Your task to perform on an android device: Go to Yahoo.com Image 0: 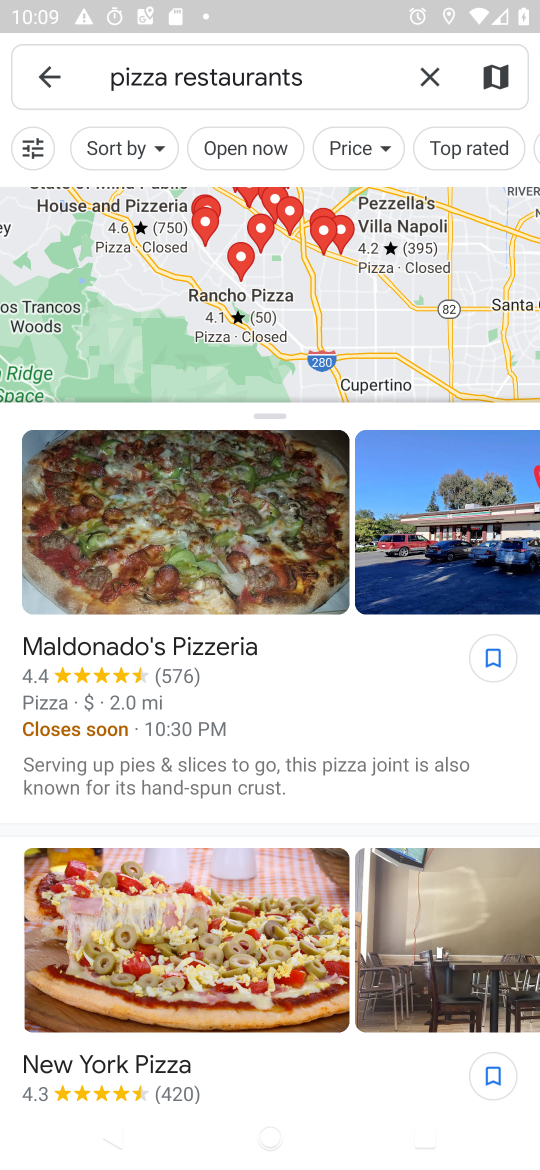
Step 0: press home button
Your task to perform on an android device: Go to Yahoo.com Image 1: 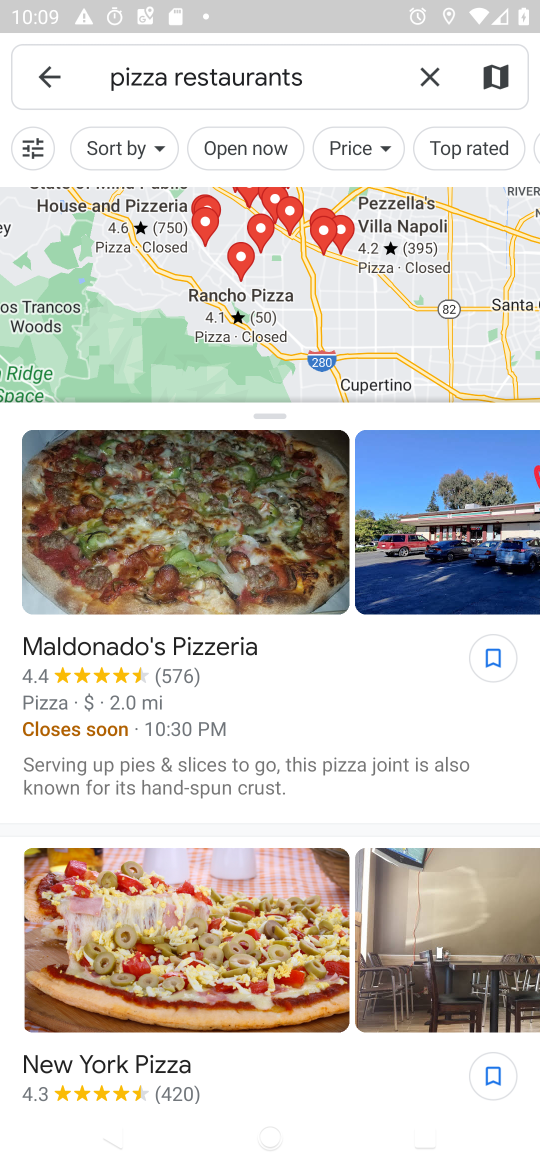
Step 1: press home button
Your task to perform on an android device: Go to Yahoo.com Image 2: 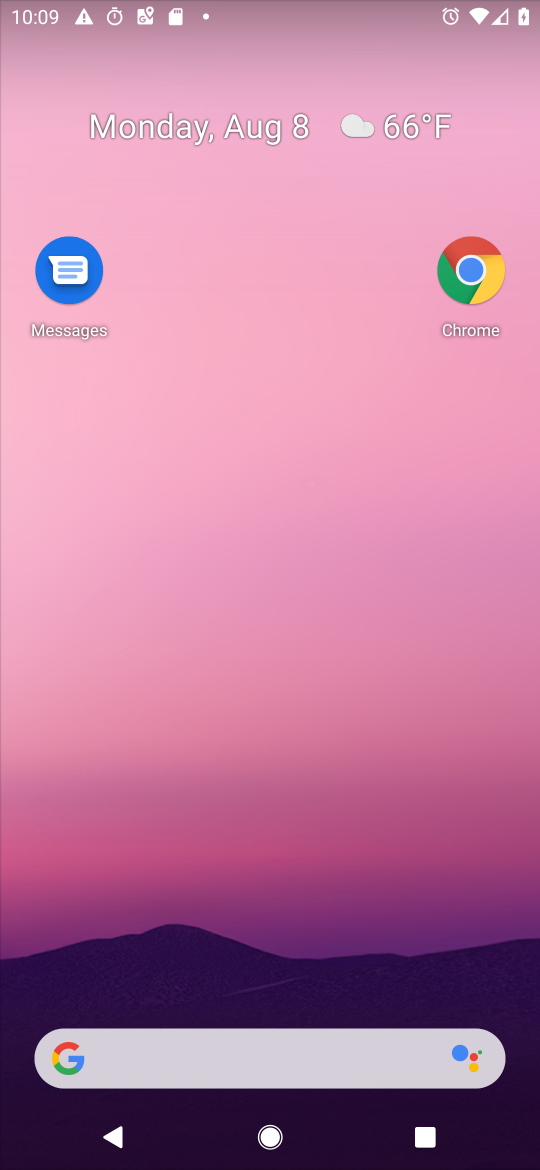
Step 2: drag from (245, 1022) to (164, 231)
Your task to perform on an android device: Go to Yahoo.com Image 3: 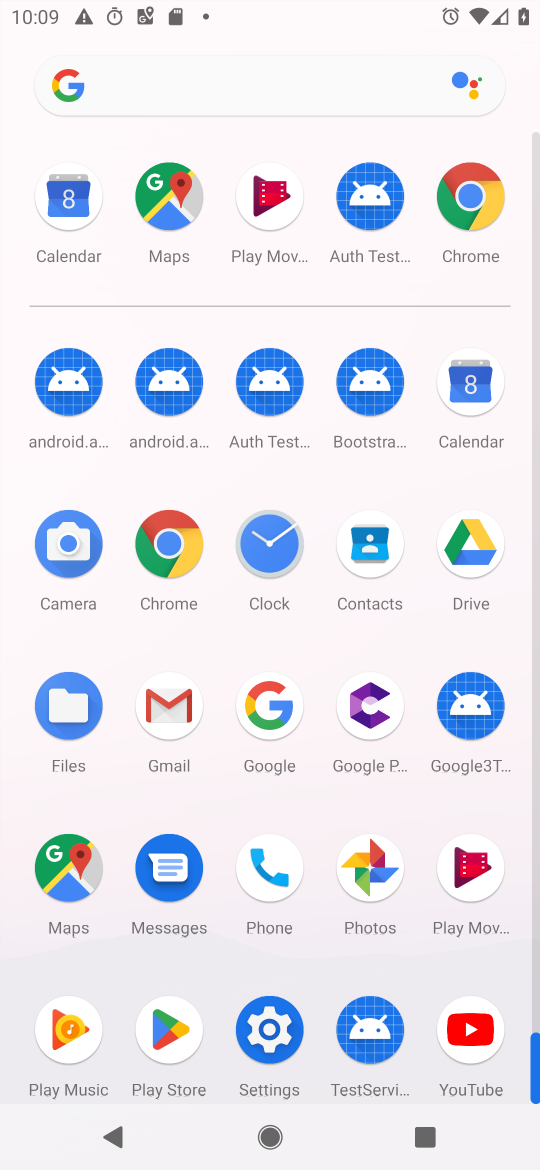
Step 3: click (478, 193)
Your task to perform on an android device: Go to Yahoo.com Image 4: 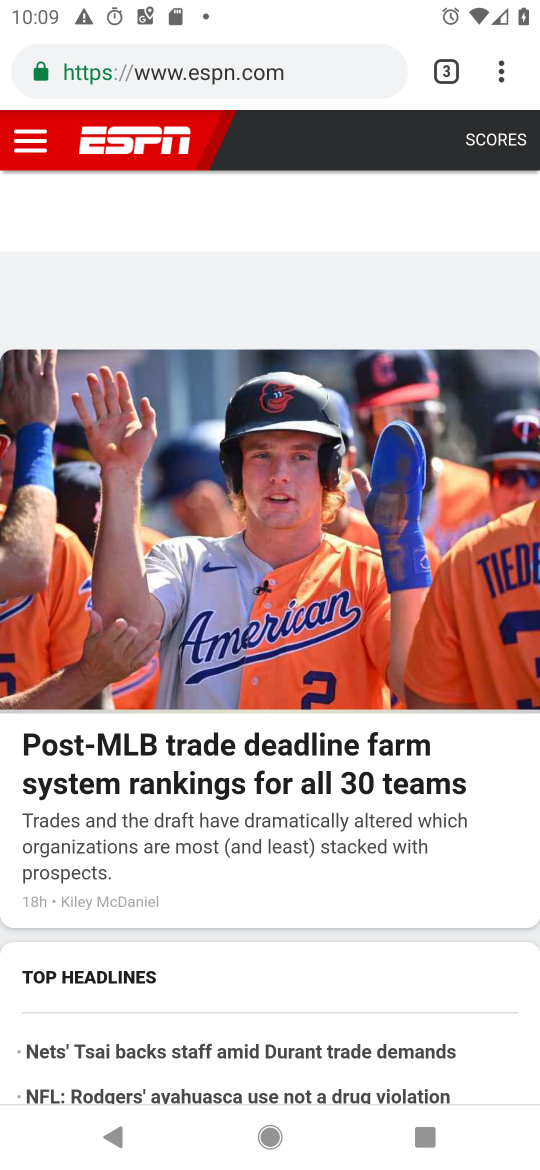
Step 4: click (237, 58)
Your task to perform on an android device: Go to Yahoo.com Image 5: 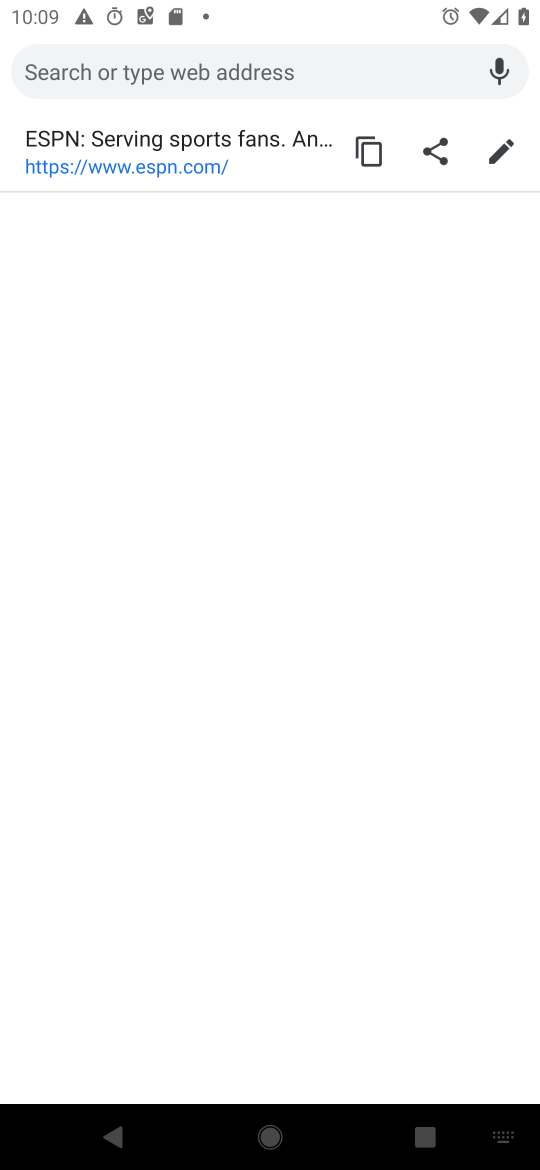
Step 5: type " Yahoo.com"
Your task to perform on an android device: Go to Yahoo.com Image 6: 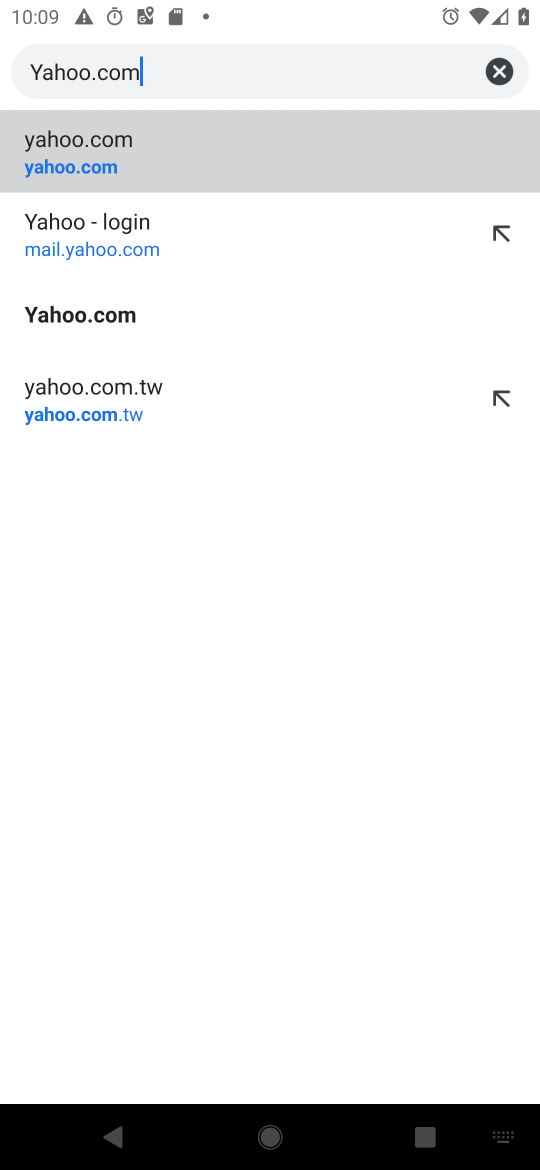
Step 6: type ""
Your task to perform on an android device: Go to Yahoo.com Image 7: 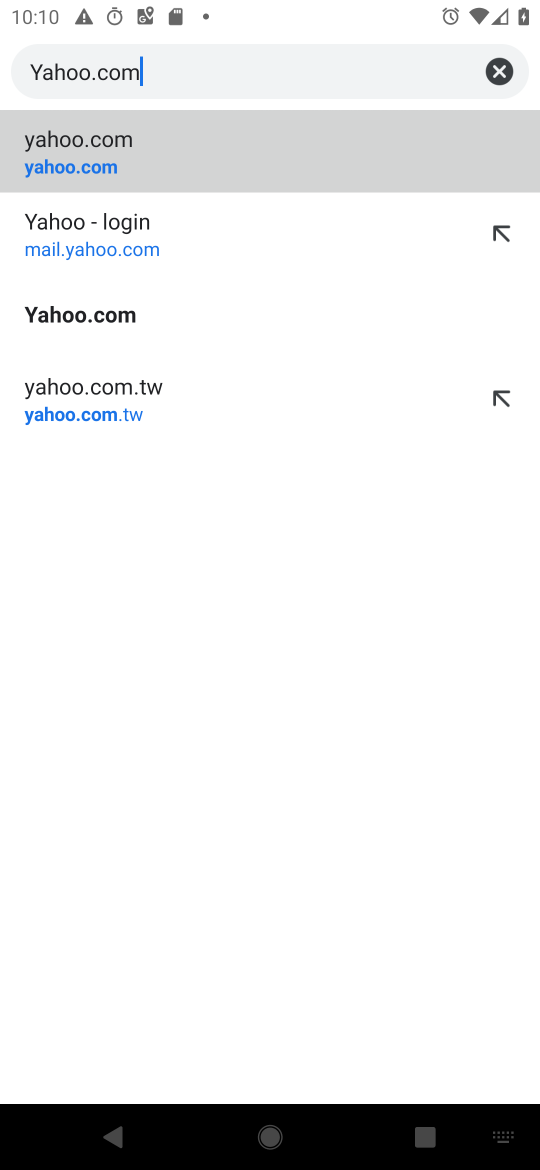
Step 7: click (78, 173)
Your task to perform on an android device: Go to Yahoo.com Image 8: 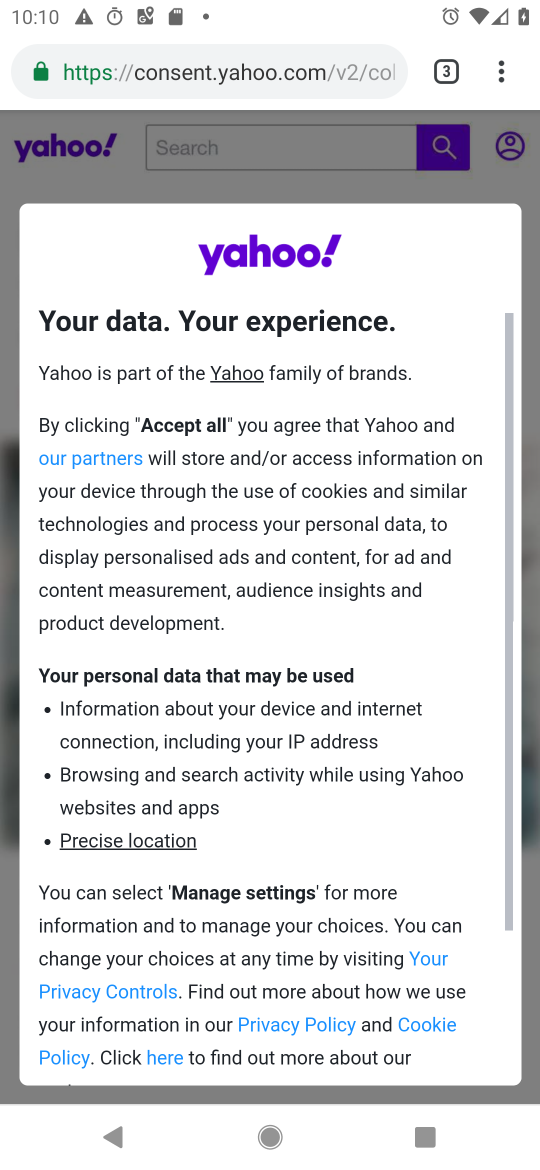
Step 8: task complete